Your task to perform on an android device: Go to ESPN.com Image 0: 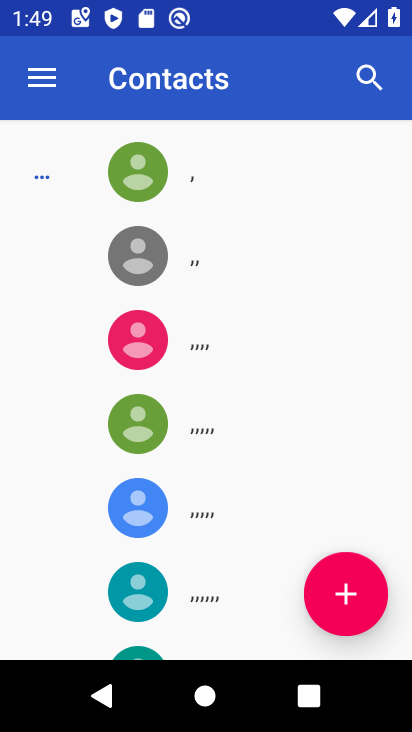
Step 0: press home button
Your task to perform on an android device: Go to ESPN.com Image 1: 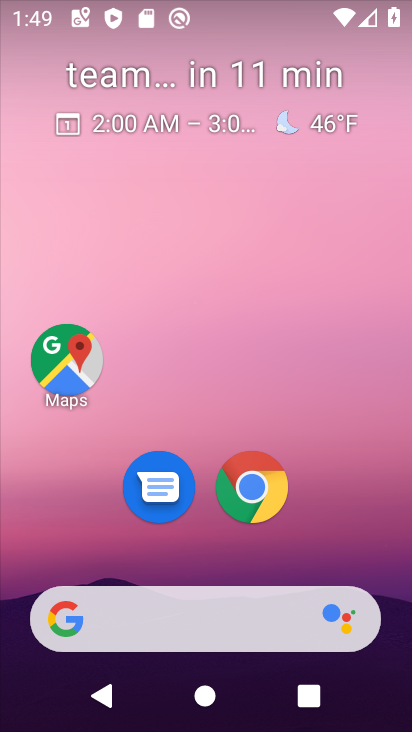
Step 1: click (253, 482)
Your task to perform on an android device: Go to ESPN.com Image 2: 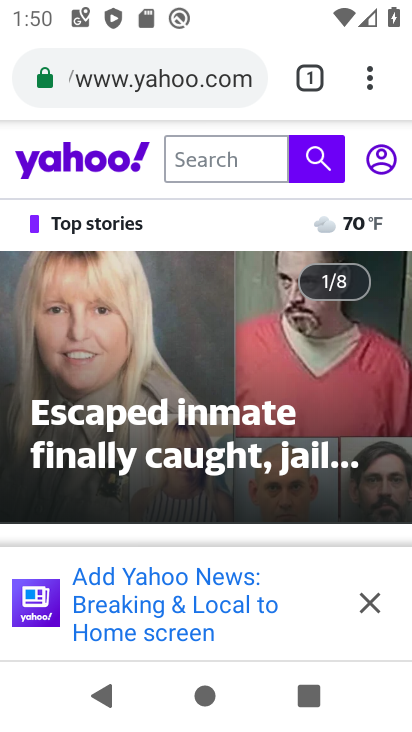
Step 2: click (177, 74)
Your task to perform on an android device: Go to ESPN.com Image 3: 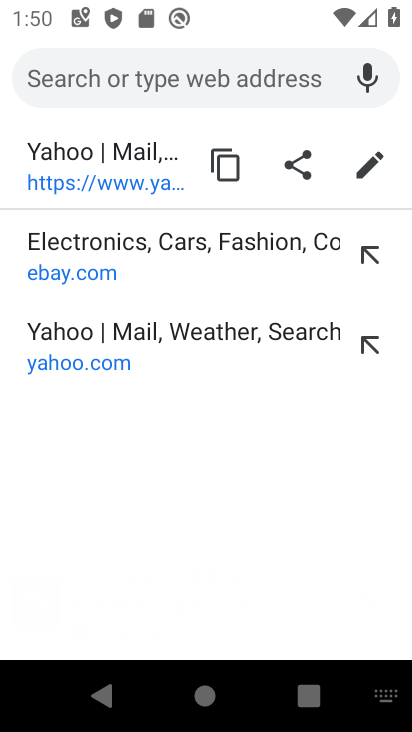
Step 3: type "espn.com"
Your task to perform on an android device: Go to ESPN.com Image 4: 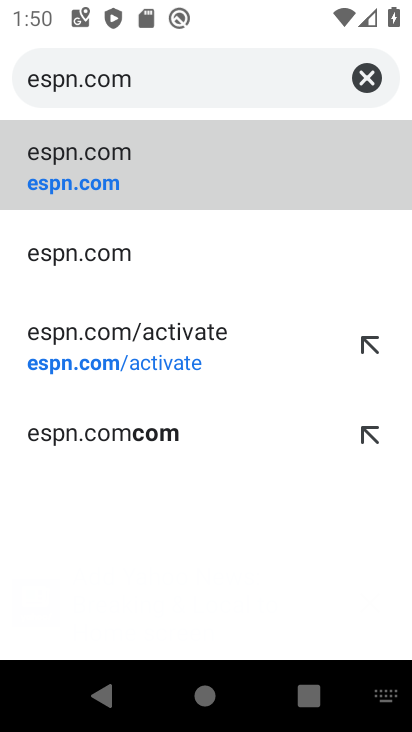
Step 4: click (70, 168)
Your task to perform on an android device: Go to ESPN.com Image 5: 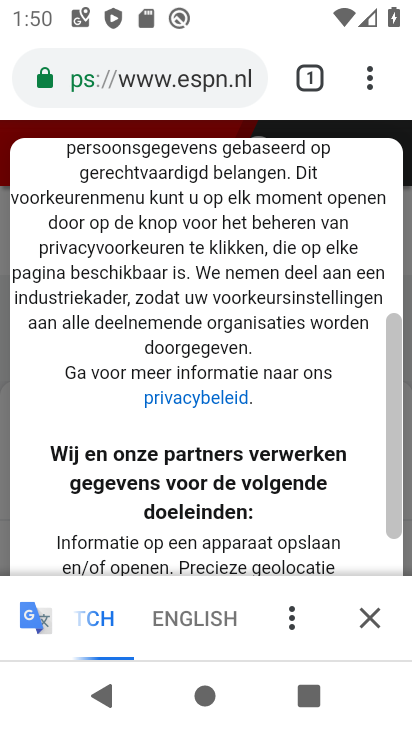
Step 5: task complete